Your task to perform on an android device: turn off data saver in the chrome app Image 0: 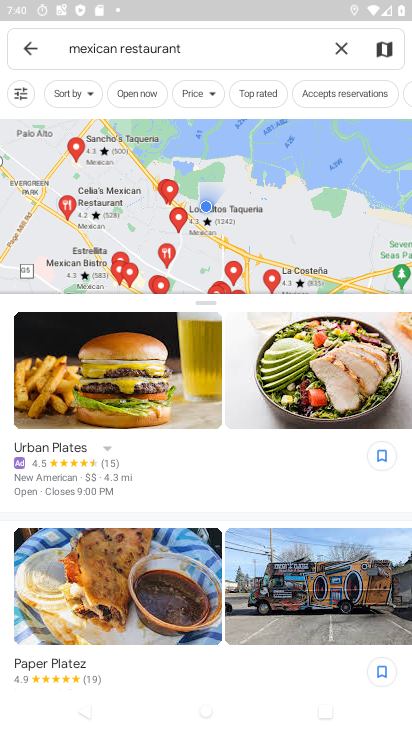
Step 0: press home button
Your task to perform on an android device: turn off data saver in the chrome app Image 1: 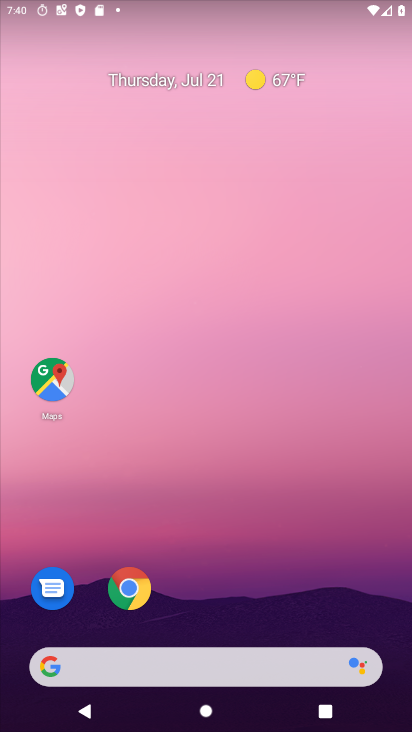
Step 1: click (129, 588)
Your task to perform on an android device: turn off data saver in the chrome app Image 2: 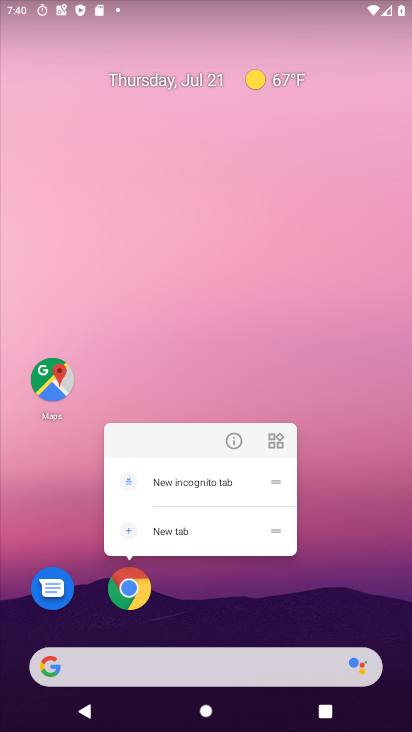
Step 2: click (129, 588)
Your task to perform on an android device: turn off data saver in the chrome app Image 3: 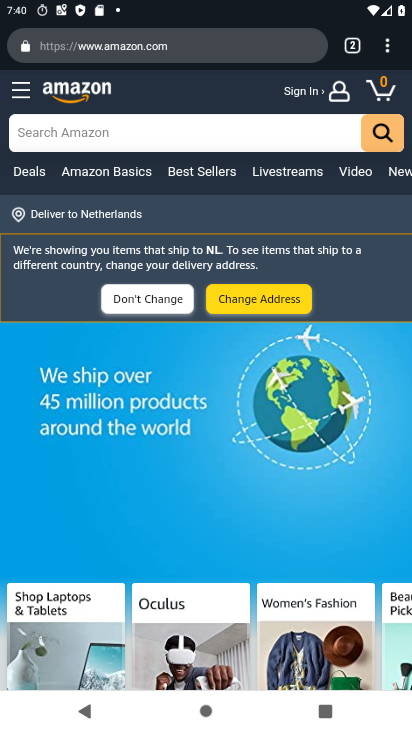
Step 3: click (388, 51)
Your task to perform on an android device: turn off data saver in the chrome app Image 4: 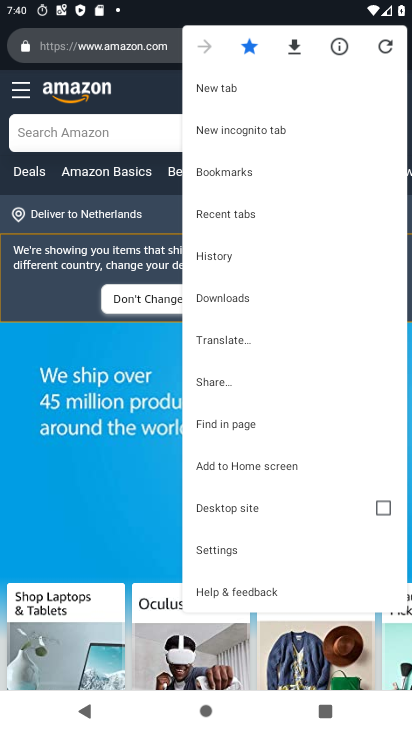
Step 4: click (211, 554)
Your task to perform on an android device: turn off data saver in the chrome app Image 5: 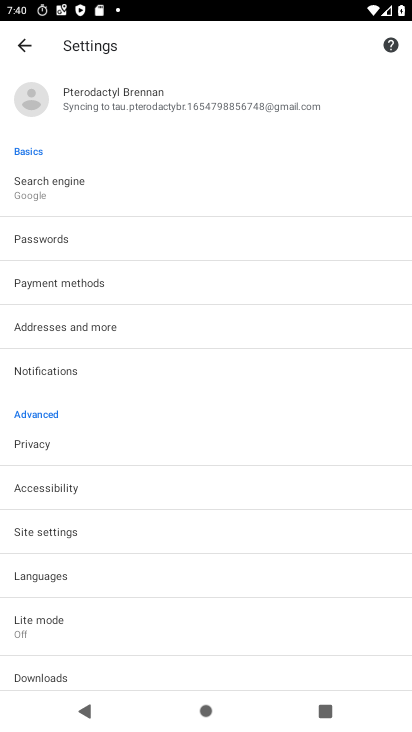
Step 5: click (63, 618)
Your task to perform on an android device: turn off data saver in the chrome app Image 6: 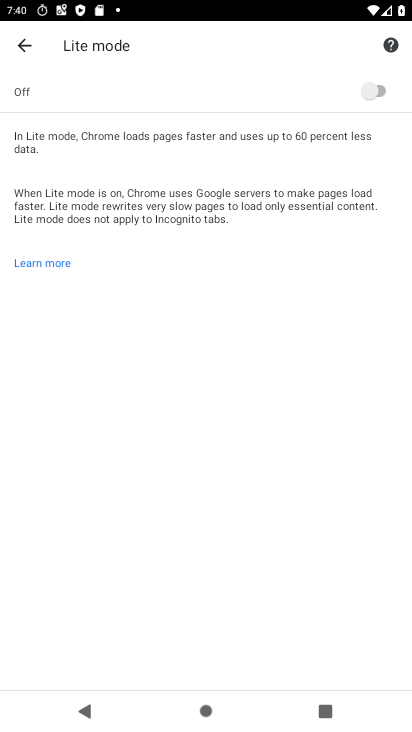
Step 6: task complete